Your task to perform on an android device: snooze an email in the gmail app Image 0: 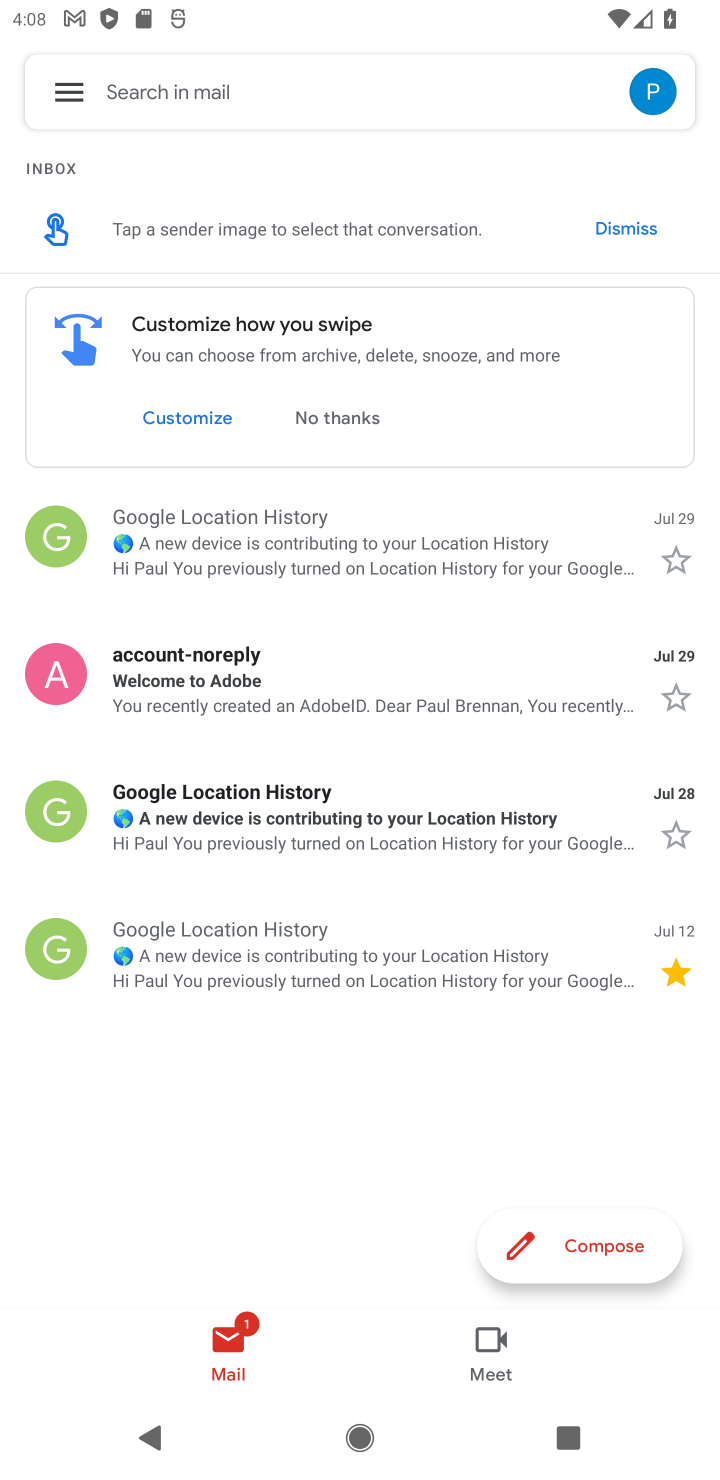
Step 0: click (317, 548)
Your task to perform on an android device: snooze an email in the gmail app Image 1: 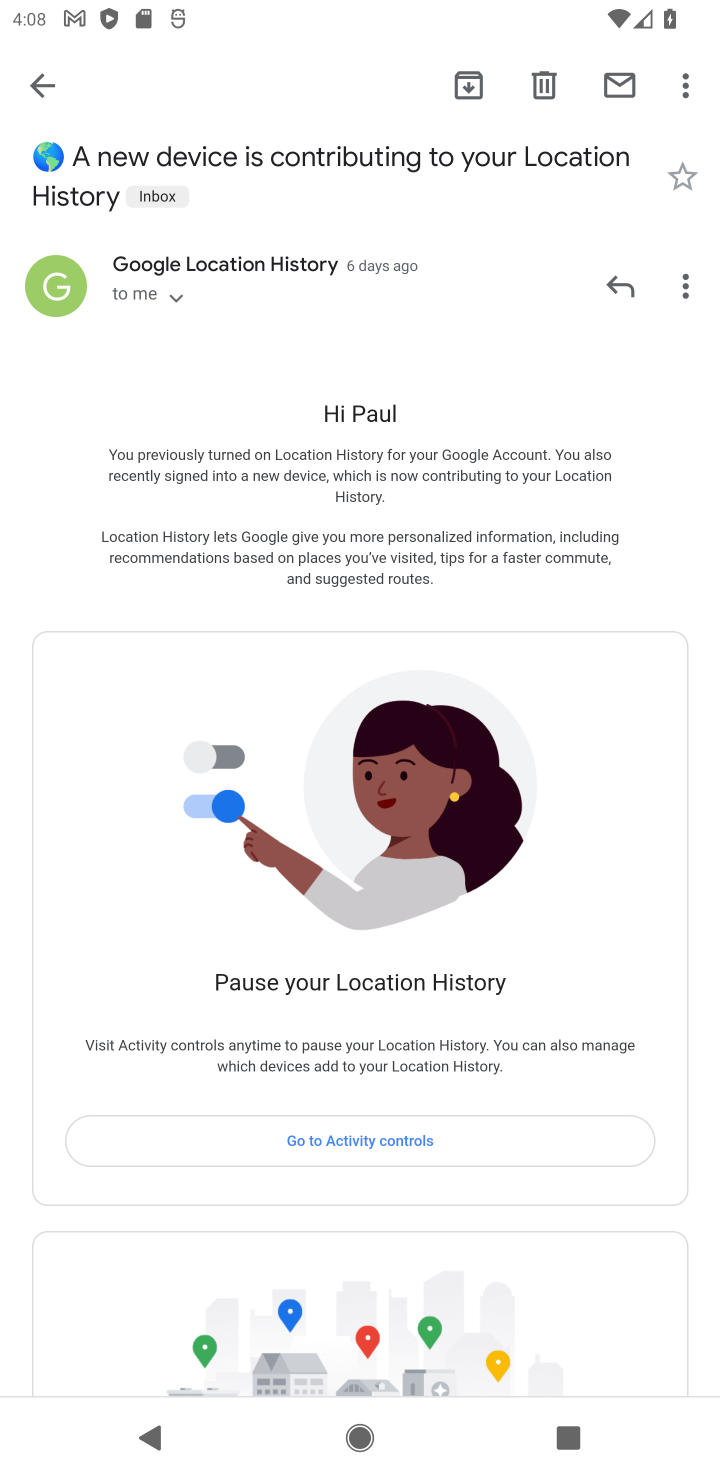
Step 1: click (691, 93)
Your task to perform on an android device: snooze an email in the gmail app Image 2: 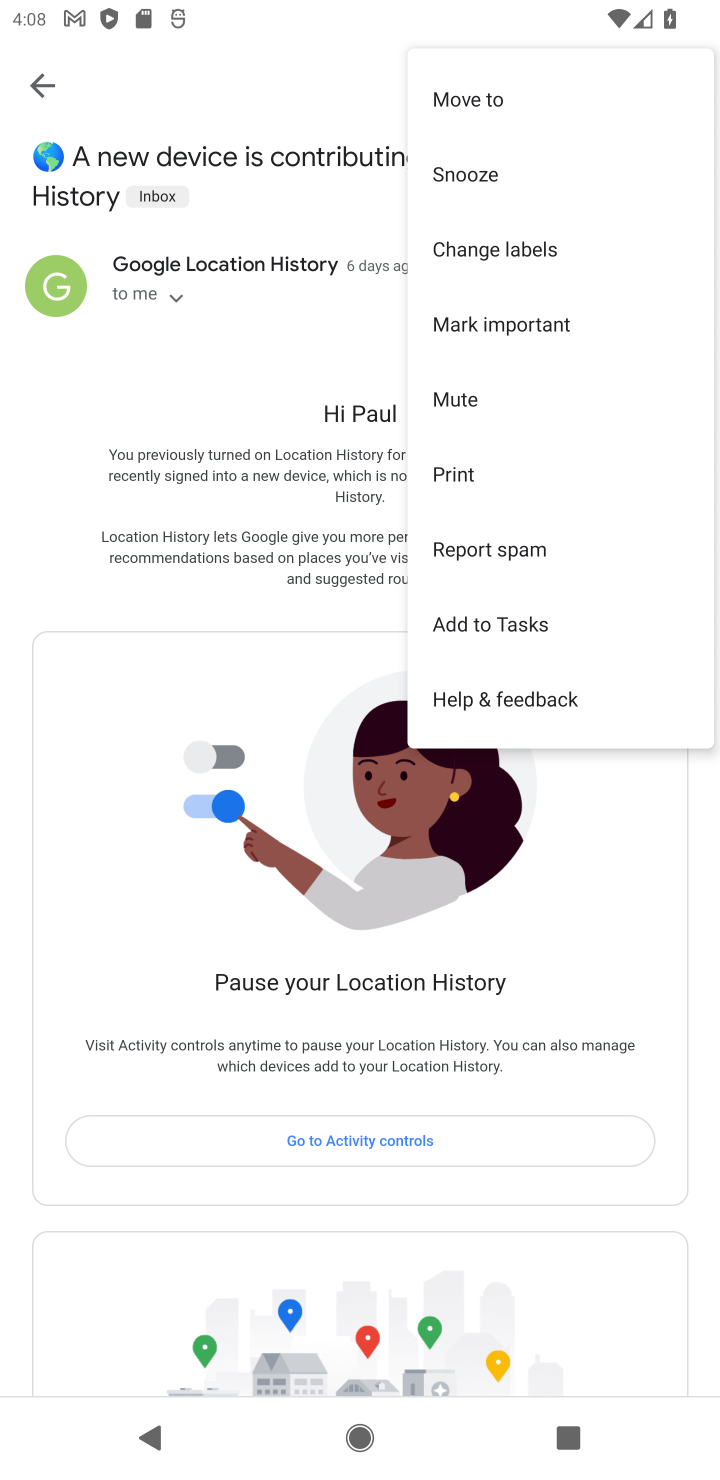
Step 2: click (468, 176)
Your task to perform on an android device: snooze an email in the gmail app Image 3: 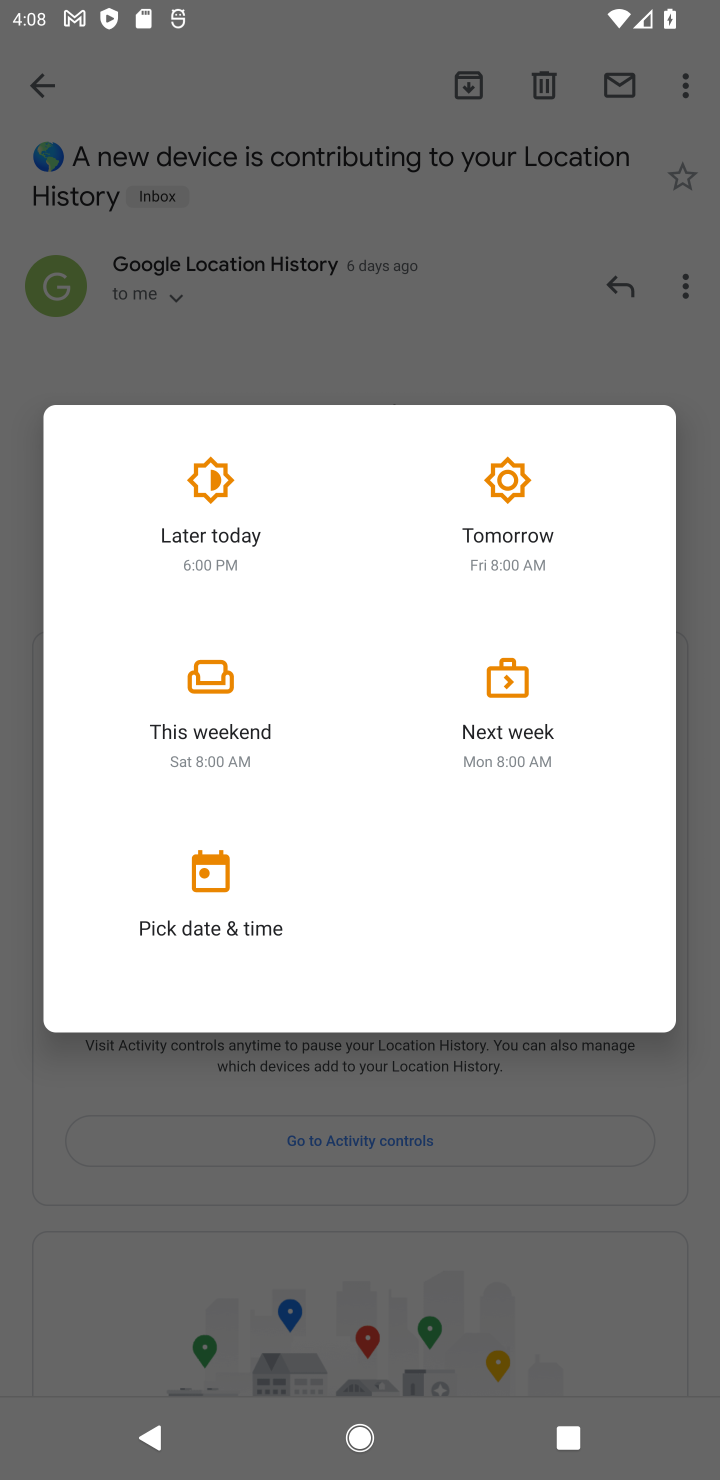
Step 3: click (205, 509)
Your task to perform on an android device: snooze an email in the gmail app Image 4: 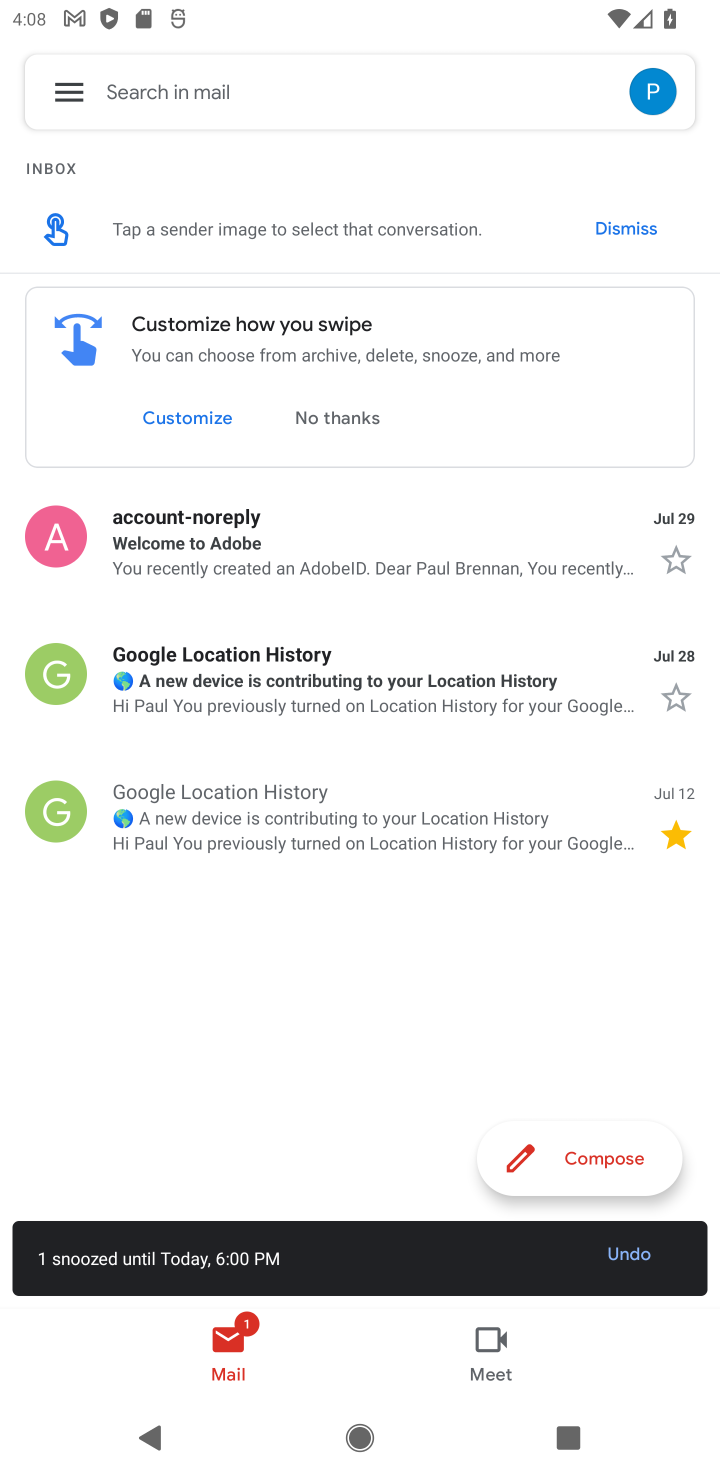
Step 4: task complete